Your task to perform on an android device: remove spam from my inbox in the gmail app Image 0: 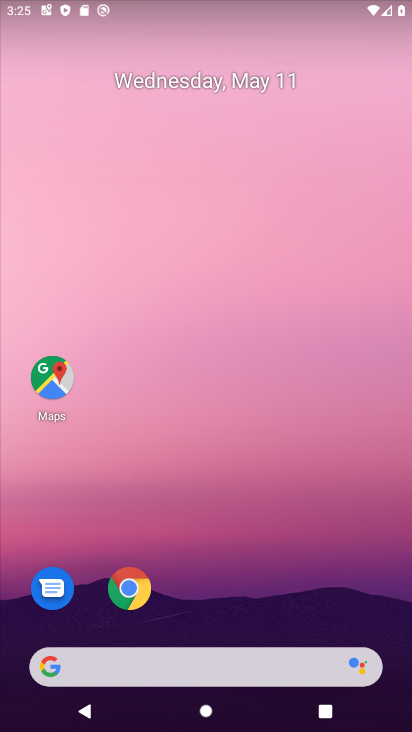
Step 0: drag from (232, 602) to (366, 4)
Your task to perform on an android device: remove spam from my inbox in the gmail app Image 1: 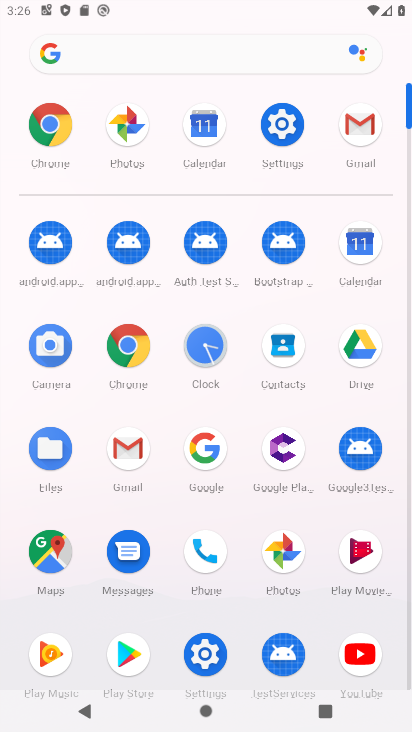
Step 1: click (149, 455)
Your task to perform on an android device: remove spam from my inbox in the gmail app Image 2: 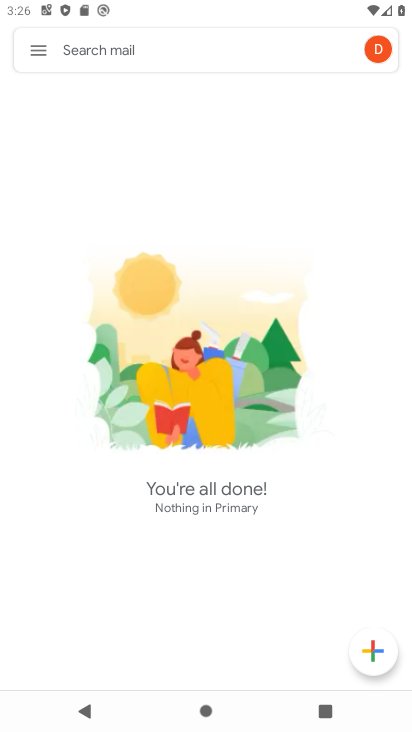
Step 2: click (45, 49)
Your task to perform on an android device: remove spam from my inbox in the gmail app Image 3: 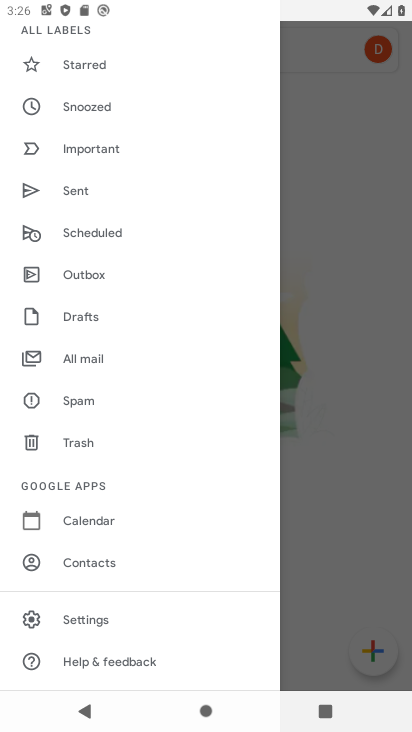
Step 3: click (109, 398)
Your task to perform on an android device: remove spam from my inbox in the gmail app Image 4: 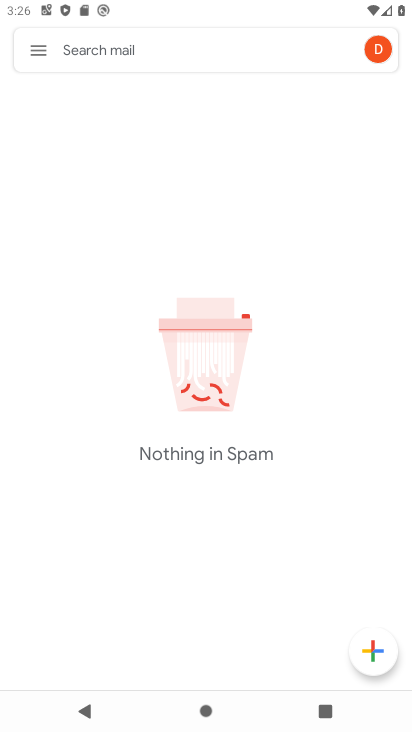
Step 4: task complete